Your task to perform on an android device: What's on my calendar today? Image 0: 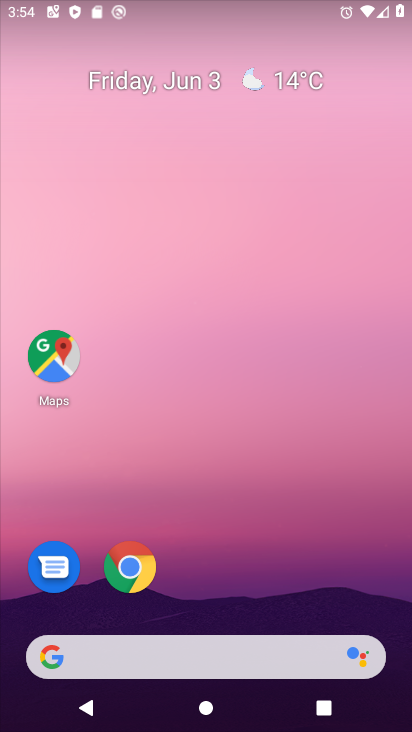
Step 0: drag from (239, 666) to (170, 192)
Your task to perform on an android device: What's on my calendar today? Image 1: 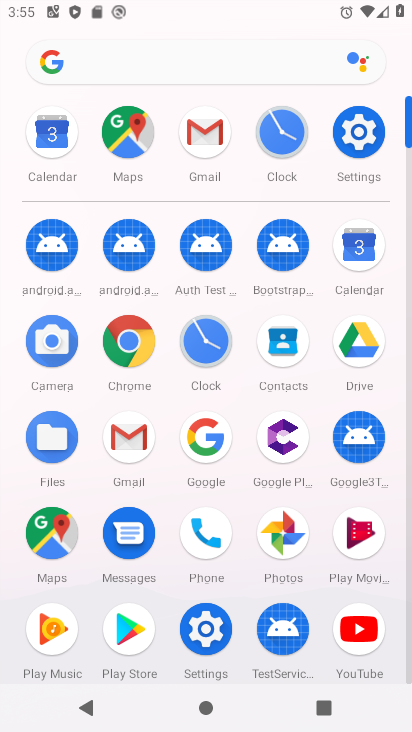
Step 1: click (379, 244)
Your task to perform on an android device: What's on my calendar today? Image 2: 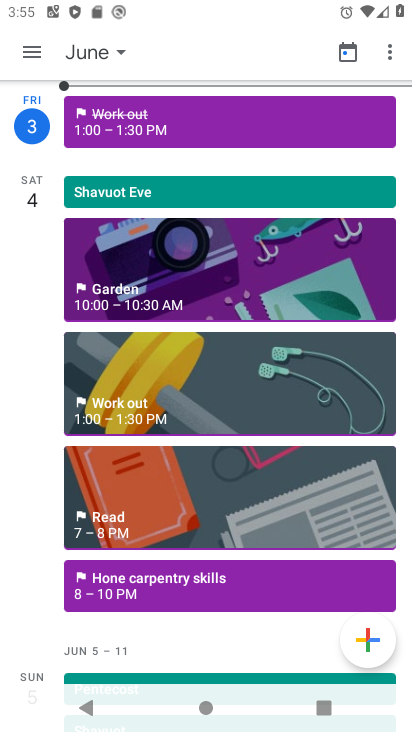
Step 2: click (18, 51)
Your task to perform on an android device: What's on my calendar today? Image 3: 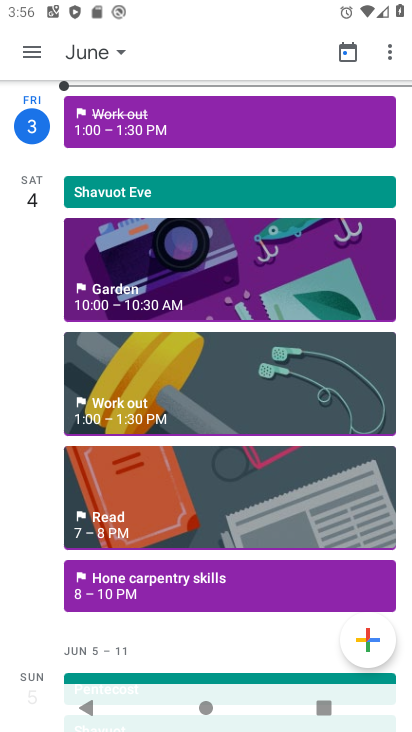
Step 3: task complete